Your task to perform on an android device: see creations saved in the google photos Image 0: 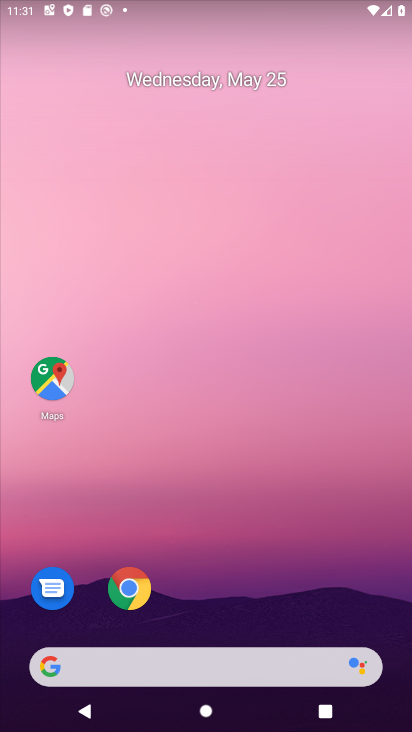
Step 0: drag from (238, 544) to (211, 0)
Your task to perform on an android device: see creations saved in the google photos Image 1: 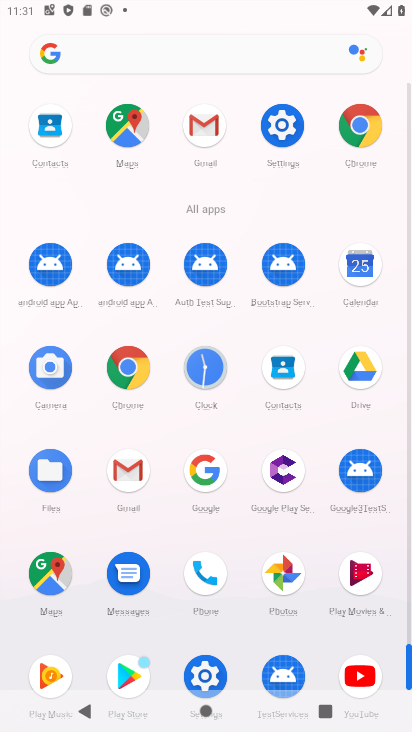
Step 1: drag from (6, 575) to (21, 266)
Your task to perform on an android device: see creations saved in the google photos Image 2: 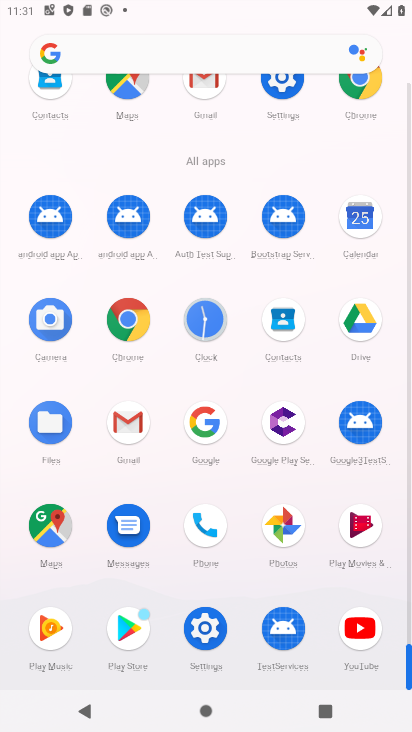
Step 2: click (281, 523)
Your task to perform on an android device: see creations saved in the google photos Image 3: 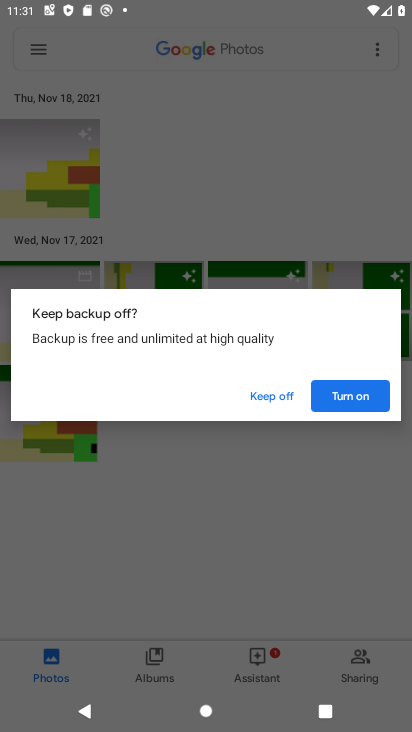
Step 3: click (343, 389)
Your task to perform on an android device: see creations saved in the google photos Image 4: 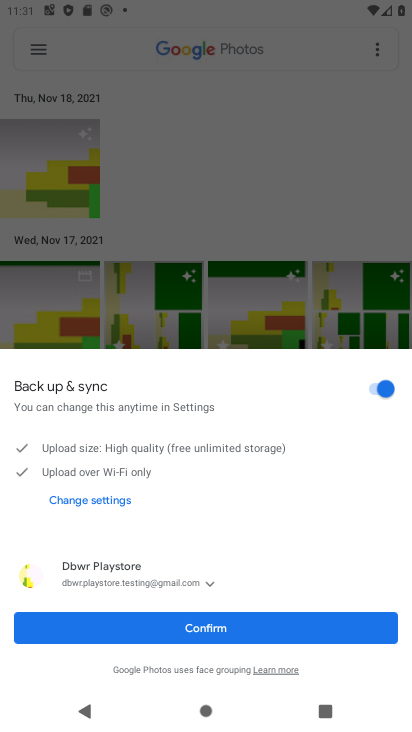
Step 4: click (217, 627)
Your task to perform on an android device: see creations saved in the google photos Image 5: 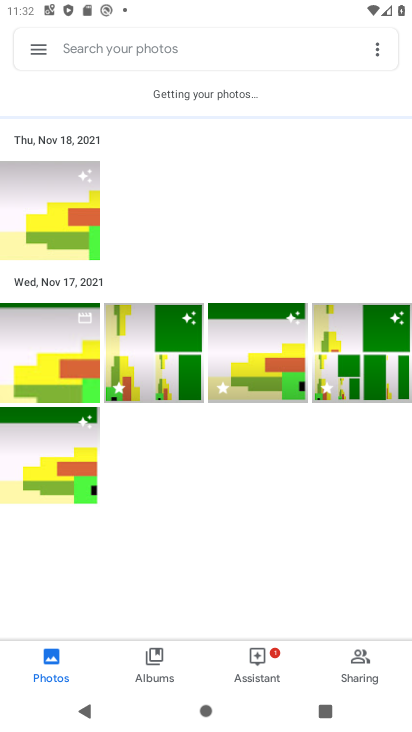
Step 5: task complete